Your task to perform on an android device: Open location settings Image 0: 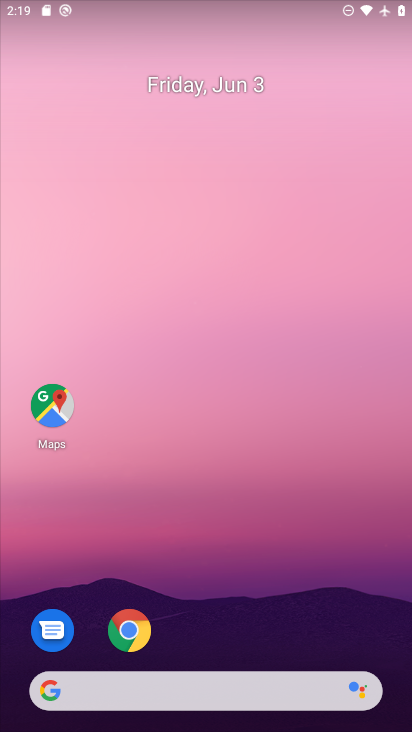
Step 0: drag from (215, 731) to (217, 54)
Your task to perform on an android device: Open location settings Image 1: 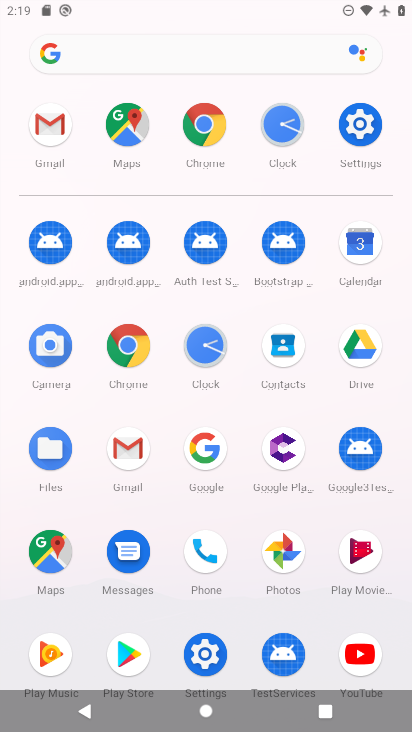
Step 1: click (360, 131)
Your task to perform on an android device: Open location settings Image 2: 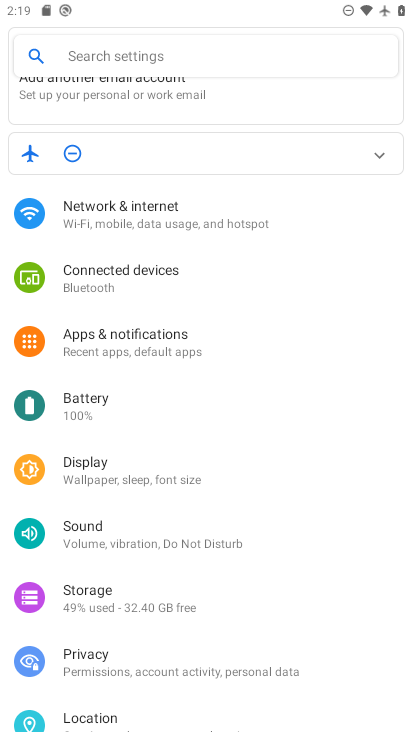
Step 2: click (93, 709)
Your task to perform on an android device: Open location settings Image 3: 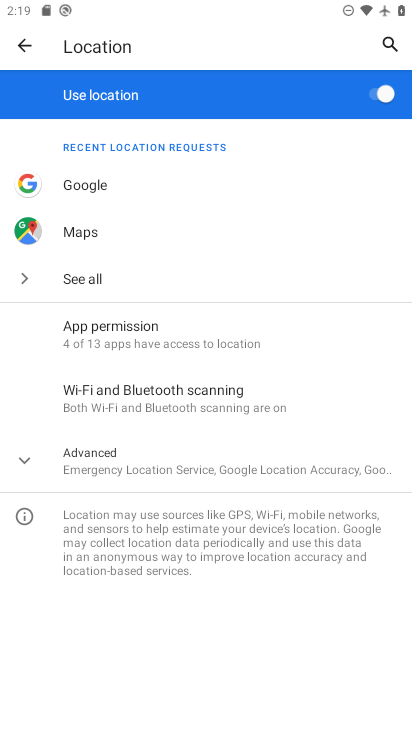
Step 3: task complete